Your task to perform on an android device: empty trash in the gmail app Image 0: 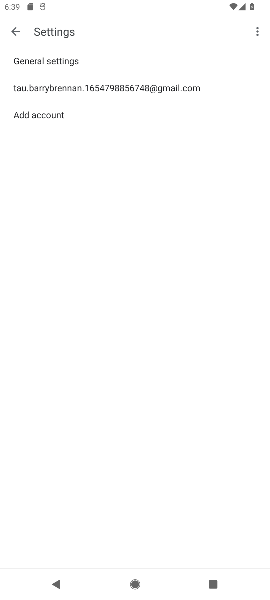
Step 0: press home button
Your task to perform on an android device: empty trash in the gmail app Image 1: 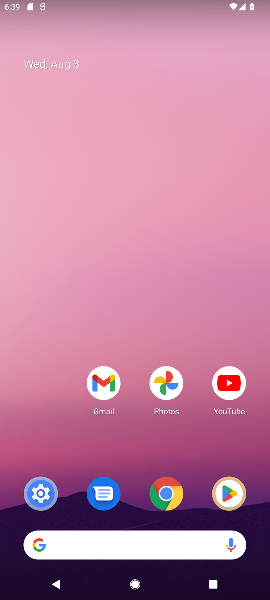
Step 1: drag from (114, 465) to (140, 130)
Your task to perform on an android device: empty trash in the gmail app Image 2: 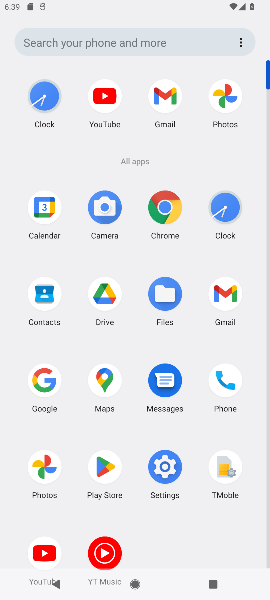
Step 2: click (221, 289)
Your task to perform on an android device: empty trash in the gmail app Image 3: 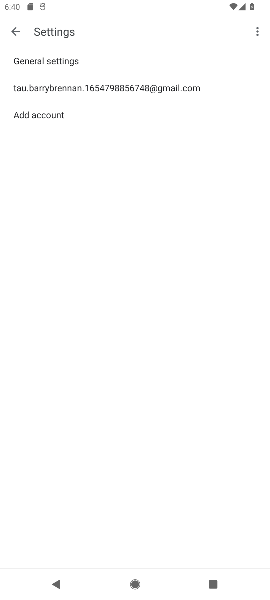
Step 3: click (11, 28)
Your task to perform on an android device: empty trash in the gmail app Image 4: 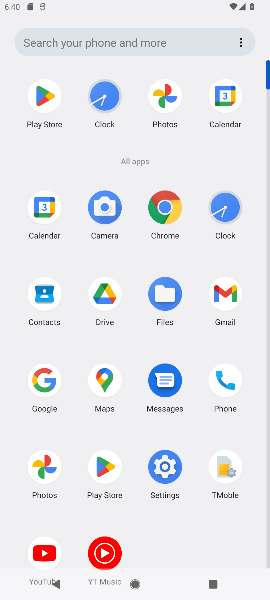
Step 4: click (217, 299)
Your task to perform on an android device: empty trash in the gmail app Image 5: 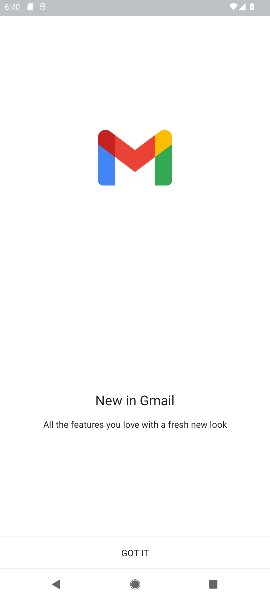
Step 5: click (150, 552)
Your task to perform on an android device: empty trash in the gmail app Image 6: 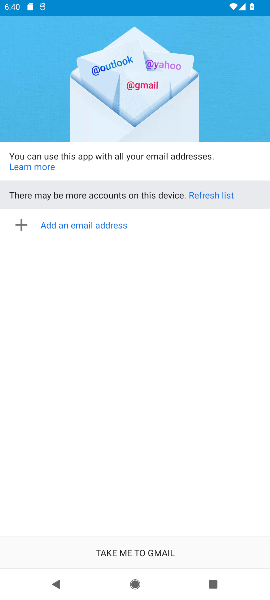
Step 6: click (141, 539)
Your task to perform on an android device: empty trash in the gmail app Image 7: 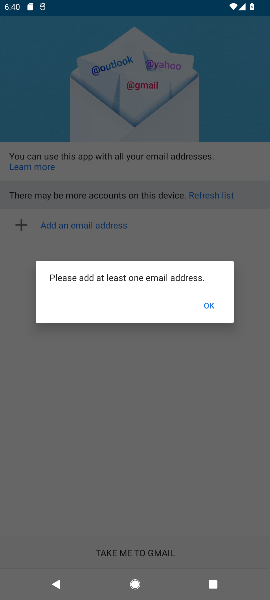
Step 7: click (202, 298)
Your task to perform on an android device: empty trash in the gmail app Image 8: 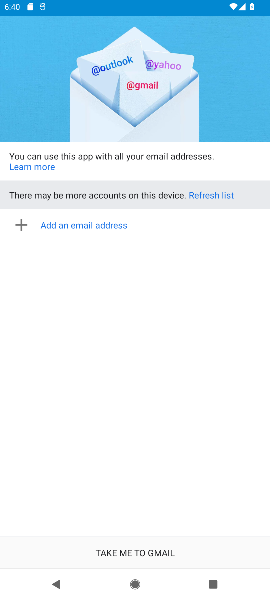
Step 8: task complete